Your task to perform on an android device: change the clock display to analog Image 0: 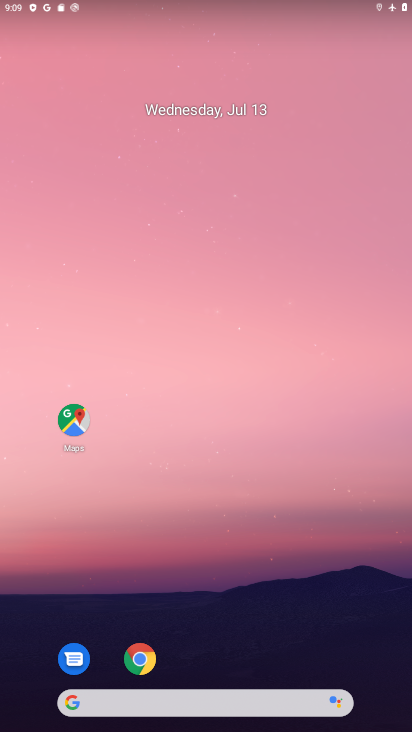
Step 0: press home button
Your task to perform on an android device: change the clock display to analog Image 1: 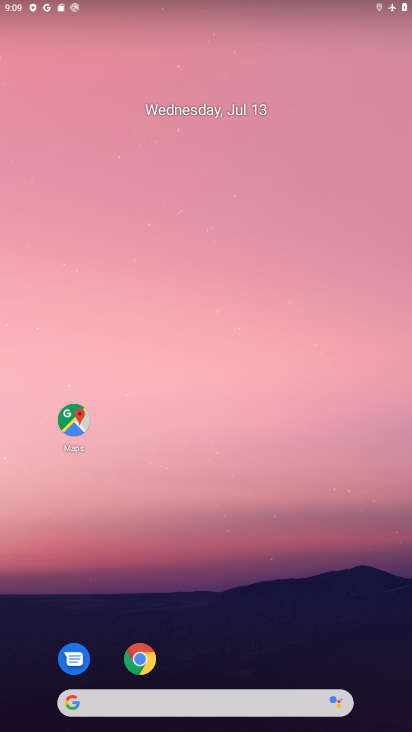
Step 1: drag from (204, 640) to (174, 337)
Your task to perform on an android device: change the clock display to analog Image 2: 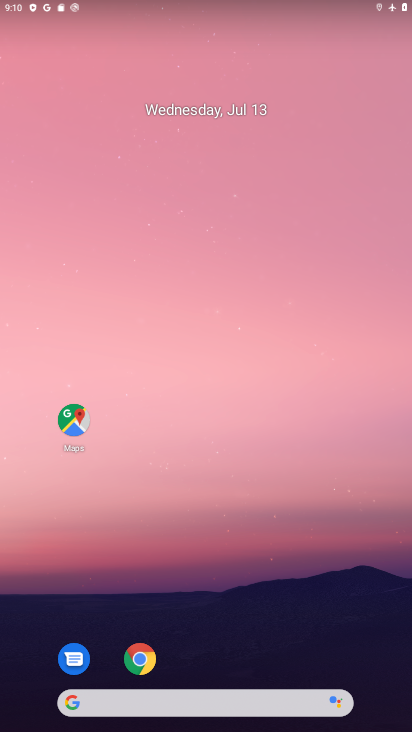
Step 2: drag from (221, 580) to (211, 238)
Your task to perform on an android device: change the clock display to analog Image 3: 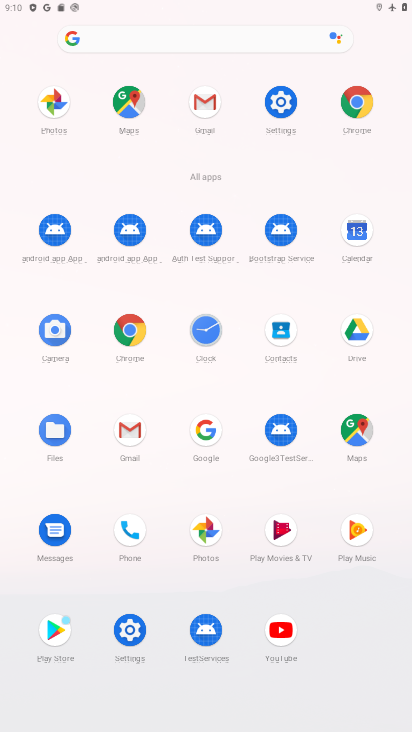
Step 3: click (203, 336)
Your task to perform on an android device: change the clock display to analog Image 4: 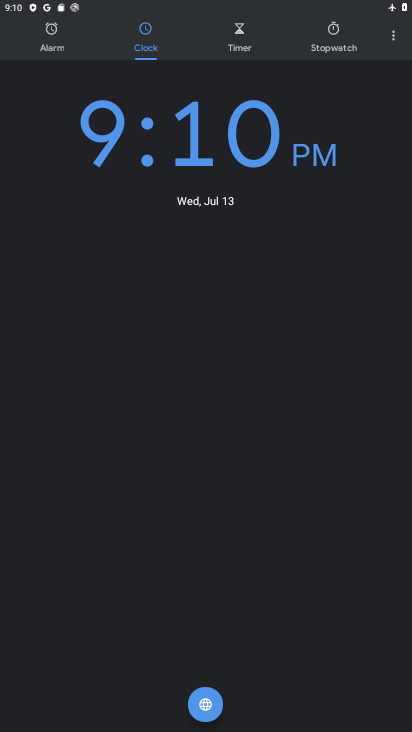
Step 4: click (400, 37)
Your task to perform on an android device: change the clock display to analog Image 5: 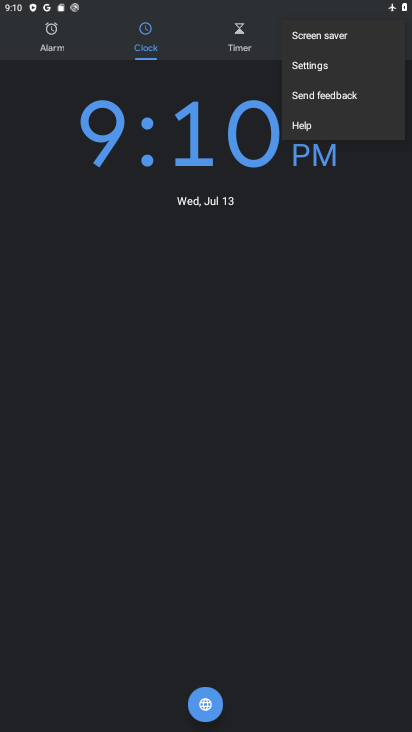
Step 5: click (331, 62)
Your task to perform on an android device: change the clock display to analog Image 6: 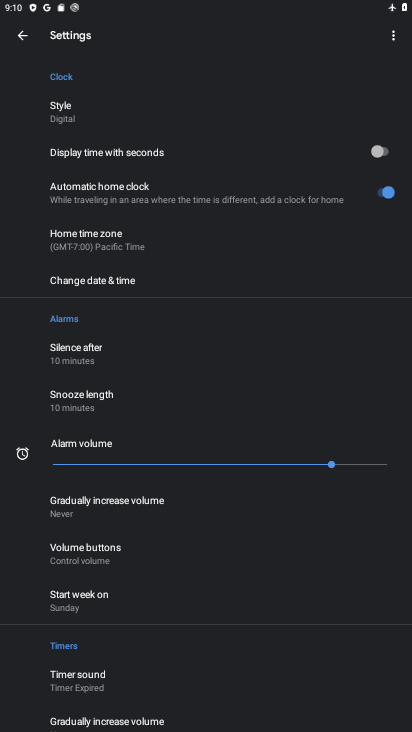
Step 6: click (98, 118)
Your task to perform on an android device: change the clock display to analog Image 7: 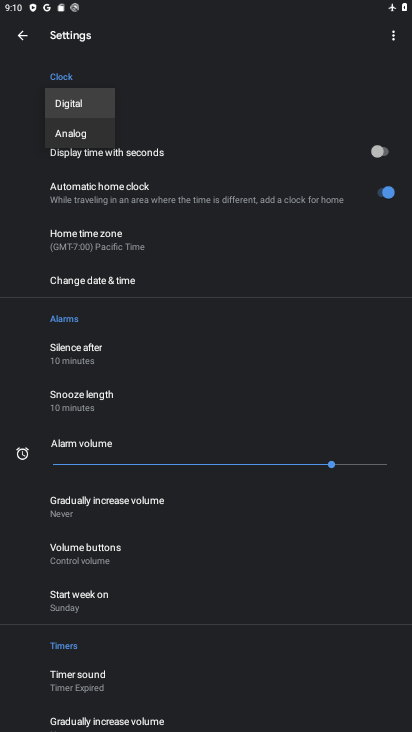
Step 7: click (89, 132)
Your task to perform on an android device: change the clock display to analog Image 8: 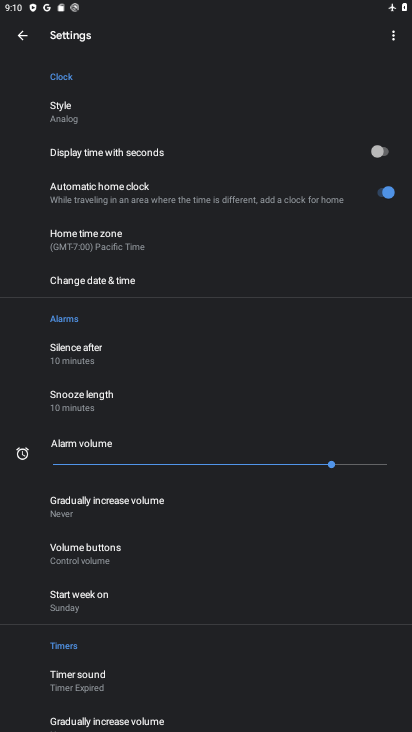
Step 8: task complete